Your task to perform on an android device: read, delete, or share a saved page in the chrome app Image 0: 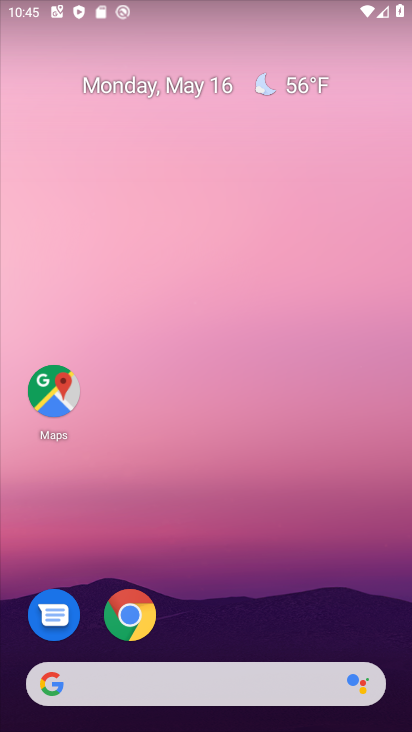
Step 0: press home button
Your task to perform on an android device: read, delete, or share a saved page in the chrome app Image 1: 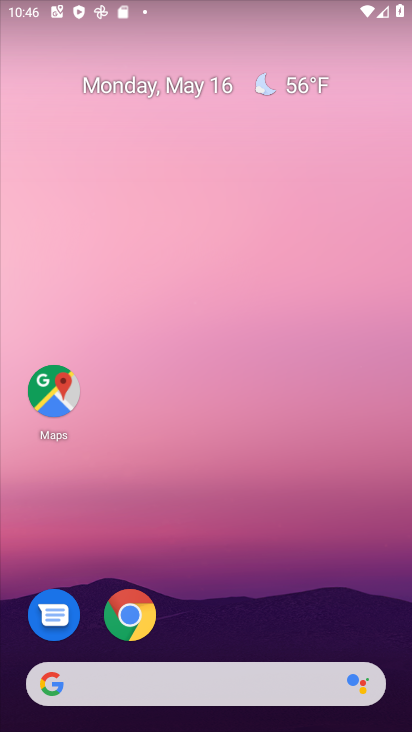
Step 1: drag from (235, 696) to (257, 230)
Your task to perform on an android device: read, delete, or share a saved page in the chrome app Image 2: 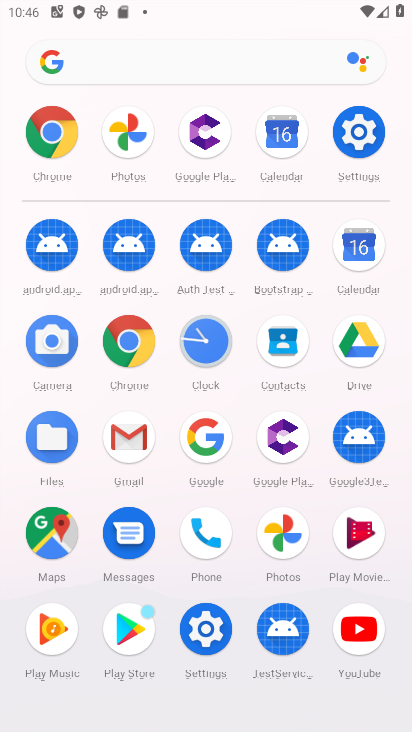
Step 2: click (79, 125)
Your task to perform on an android device: read, delete, or share a saved page in the chrome app Image 3: 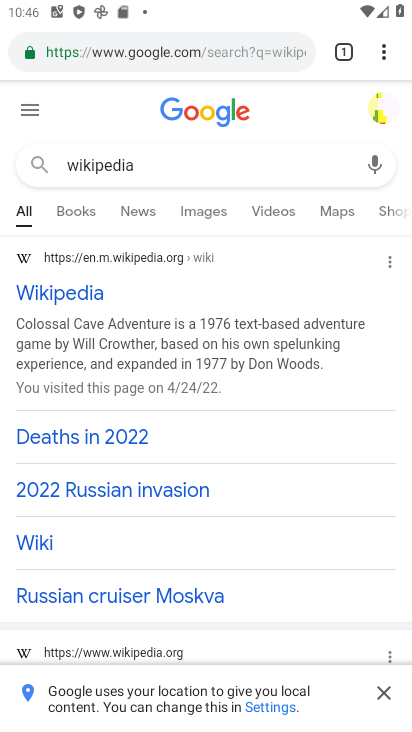
Step 3: click (373, 70)
Your task to perform on an android device: read, delete, or share a saved page in the chrome app Image 4: 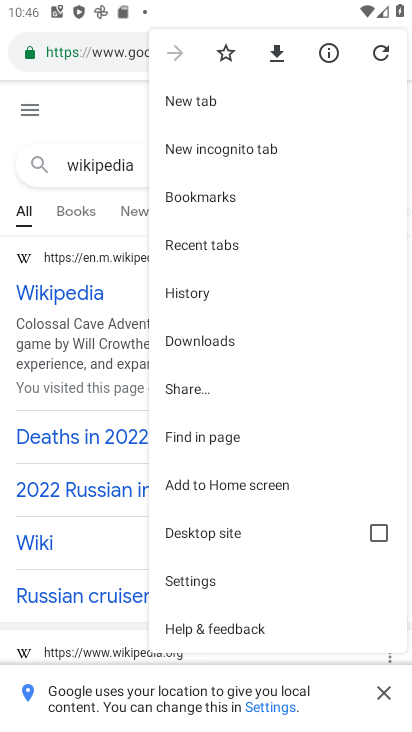
Step 4: click (227, 400)
Your task to perform on an android device: read, delete, or share a saved page in the chrome app Image 5: 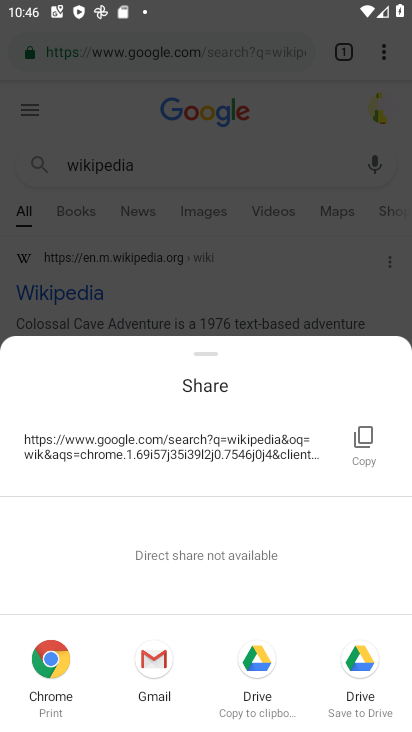
Step 5: task complete